Your task to perform on an android device: Go to internet settings Image 0: 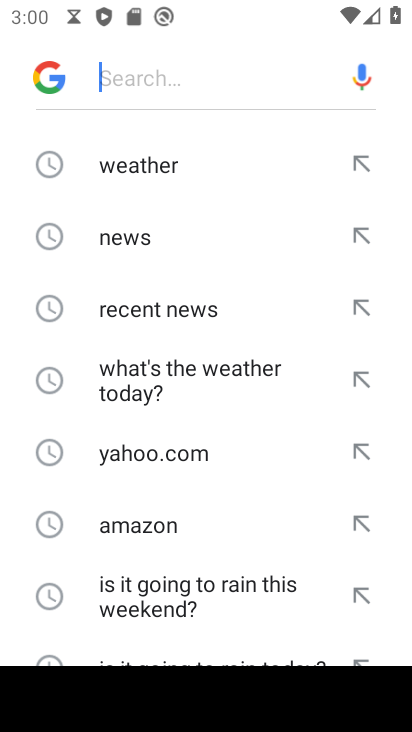
Step 0: press home button
Your task to perform on an android device: Go to internet settings Image 1: 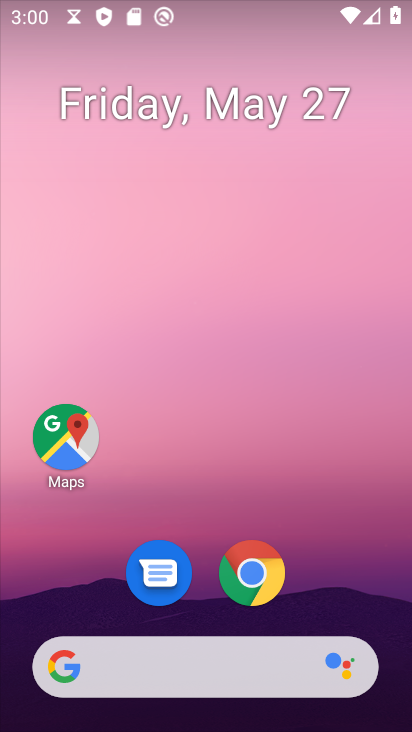
Step 1: drag from (207, 599) to (249, 1)
Your task to perform on an android device: Go to internet settings Image 2: 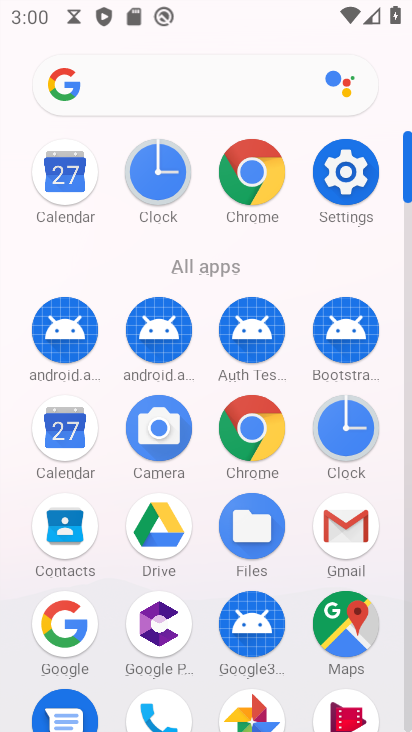
Step 2: click (333, 188)
Your task to perform on an android device: Go to internet settings Image 3: 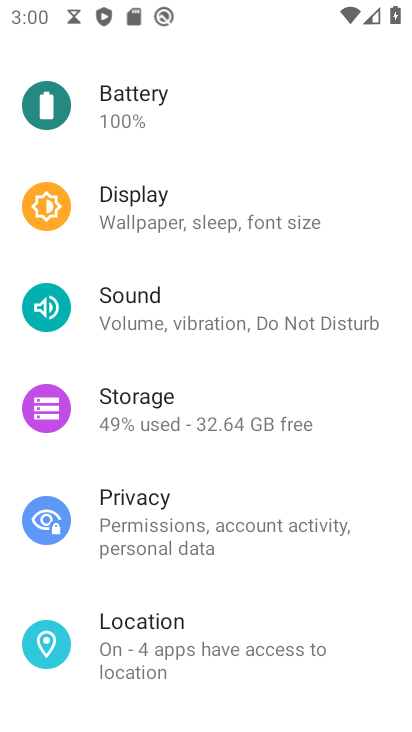
Step 3: drag from (222, 239) to (149, 680)
Your task to perform on an android device: Go to internet settings Image 4: 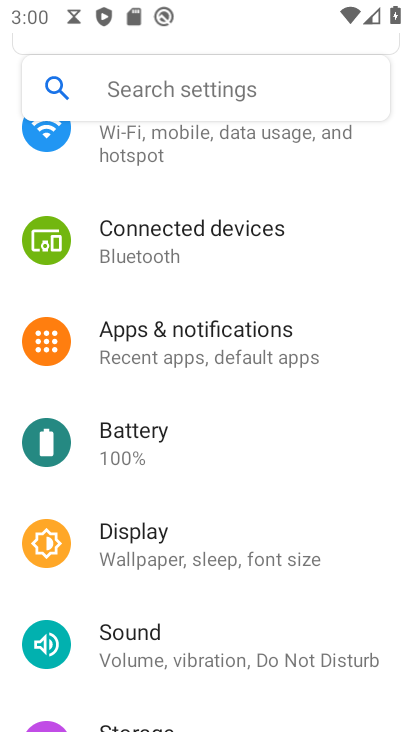
Step 4: drag from (216, 305) to (218, 729)
Your task to perform on an android device: Go to internet settings Image 5: 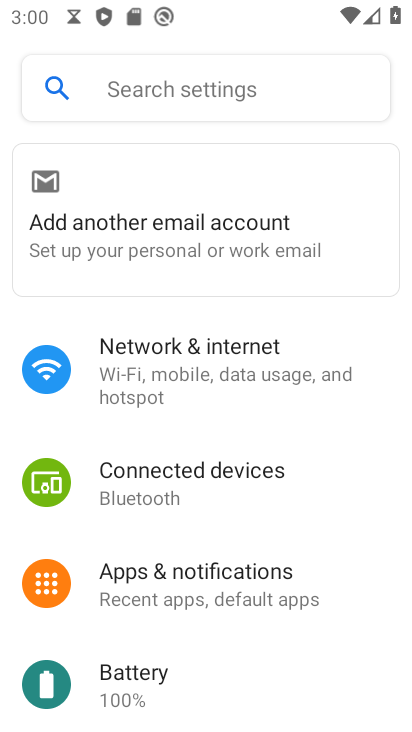
Step 5: click (236, 376)
Your task to perform on an android device: Go to internet settings Image 6: 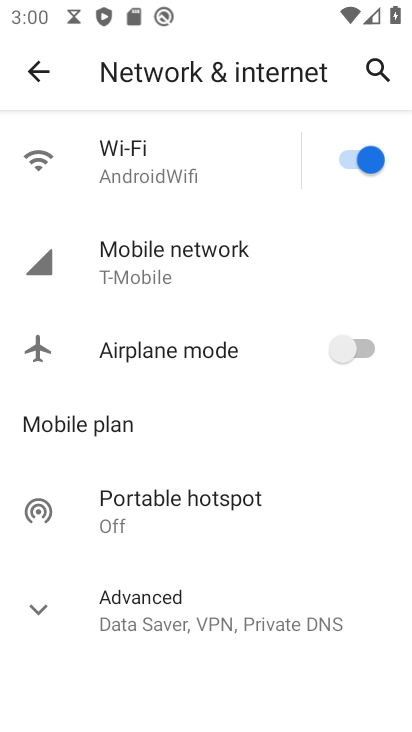
Step 6: click (153, 262)
Your task to perform on an android device: Go to internet settings Image 7: 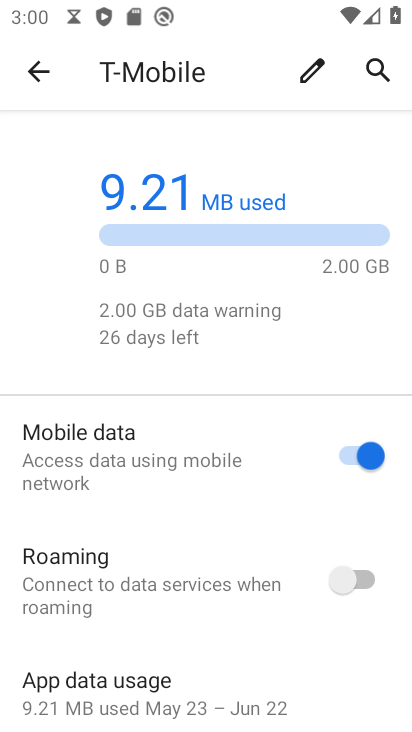
Step 7: task complete